Your task to perform on an android device: Go to ESPN.com Image 0: 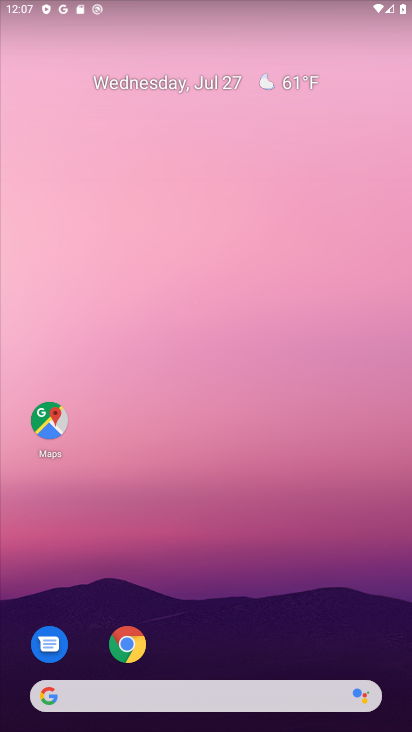
Step 0: drag from (213, 499) to (227, 52)
Your task to perform on an android device: Go to ESPN.com Image 1: 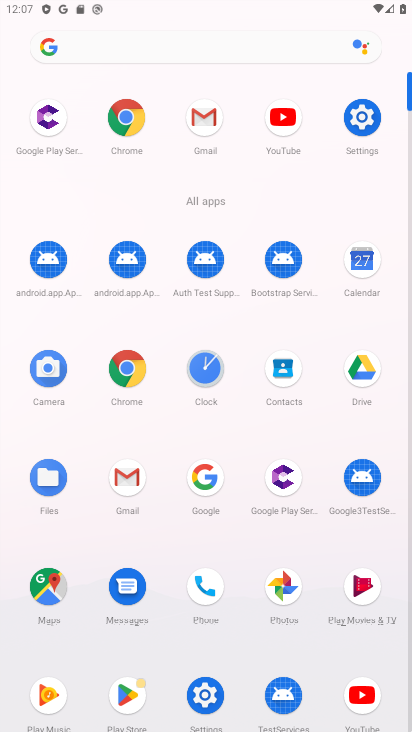
Step 1: click (171, 44)
Your task to perform on an android device: Go to ESPN.com Image 2: 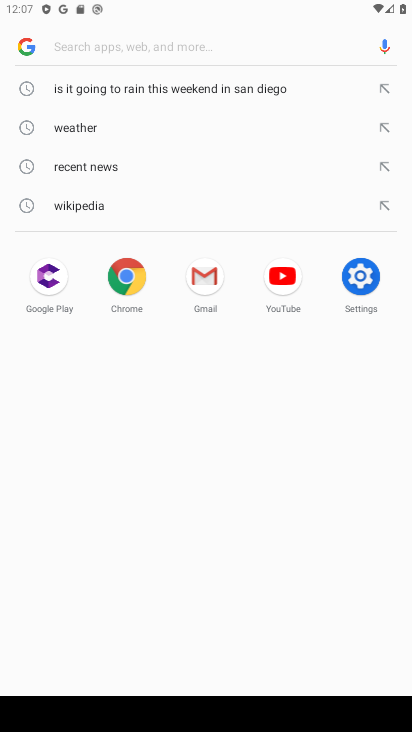
Step 2: type "espn.com"
Your task to perform on an android device: Go to ESPN.com Image 3: 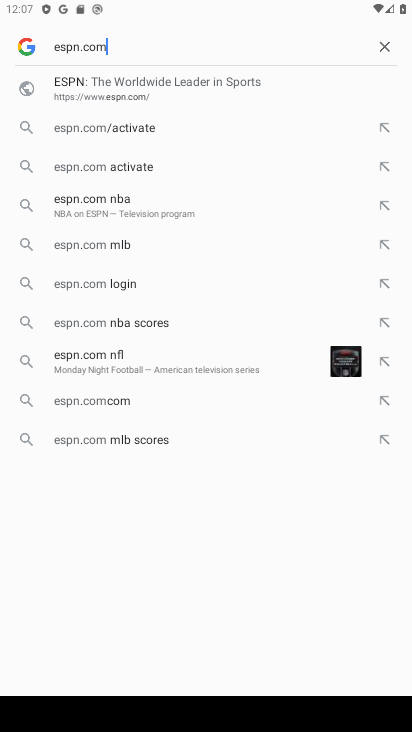
Step 3: click (96, 92)
Your task to perform on an android device: Go to ESPN.com Image 4: 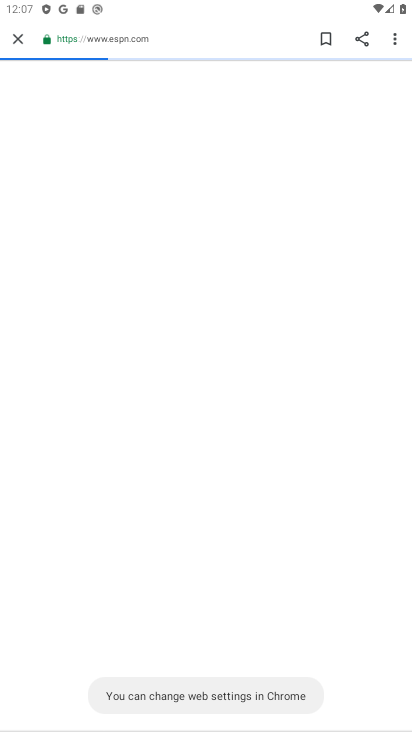
Step 4: task complete